Your task to perform on an android device: Go to Maps Image 0: 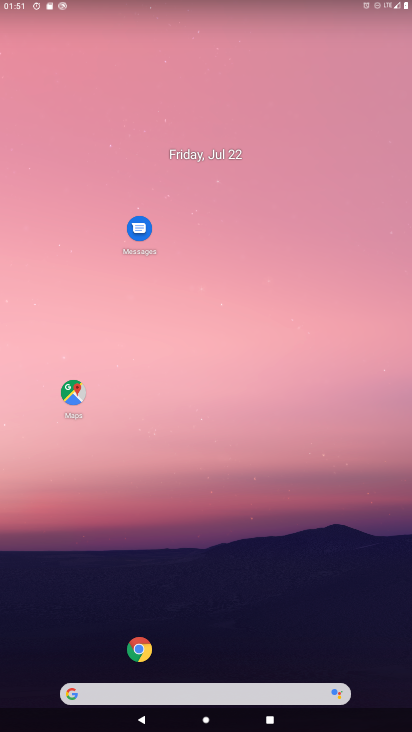
Step 0: click (64, 403)
Your task to perform on an android device: Go to Maps Image 1: 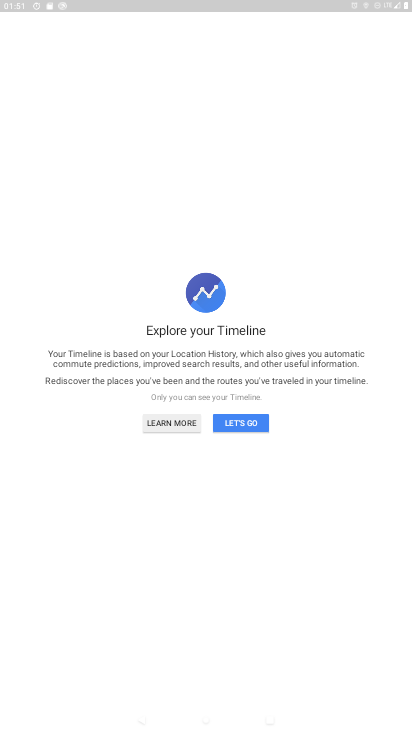
Step 1: click (243, 415)
Your task to perform on an android device: Go to Maps Image 2: 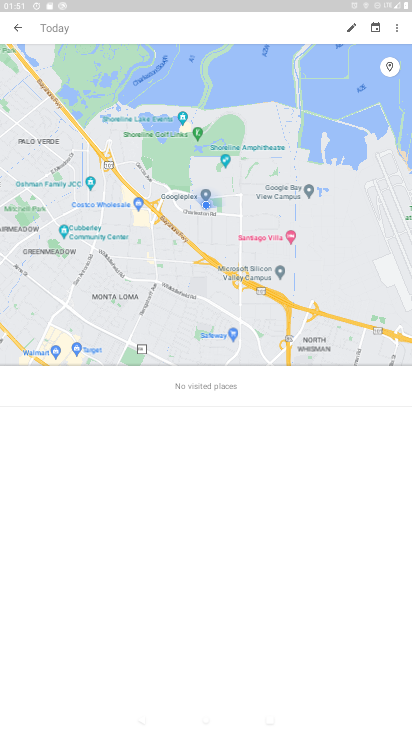
Step 2: click (10, 25)
Your task to perform on an android device: Go to Maps Image 3: 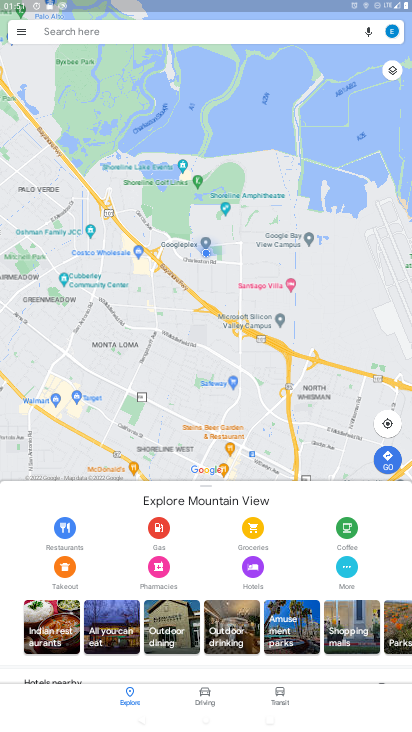
Step 3: task complete